Your task to perform on an android device: set the timer Image 0: 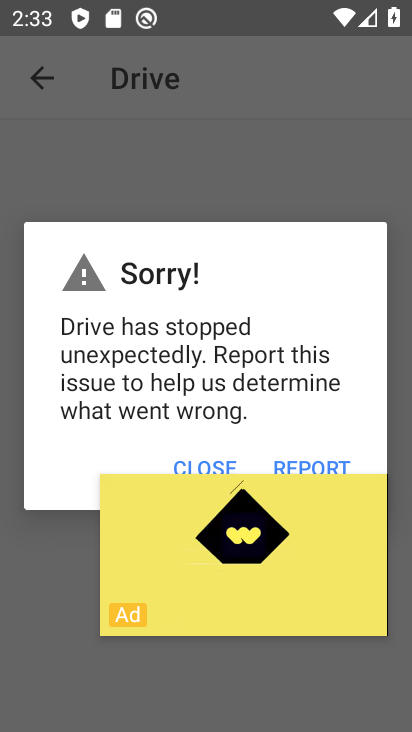
Step 0: press home button
Your task to perform on an android device: set the timer Image 1: 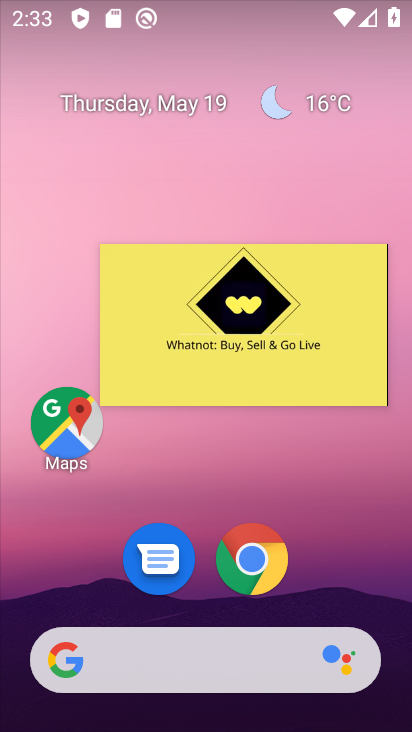
Step 1: click (350, 295)
Your task to perform on an android device: set the timer Image 2: 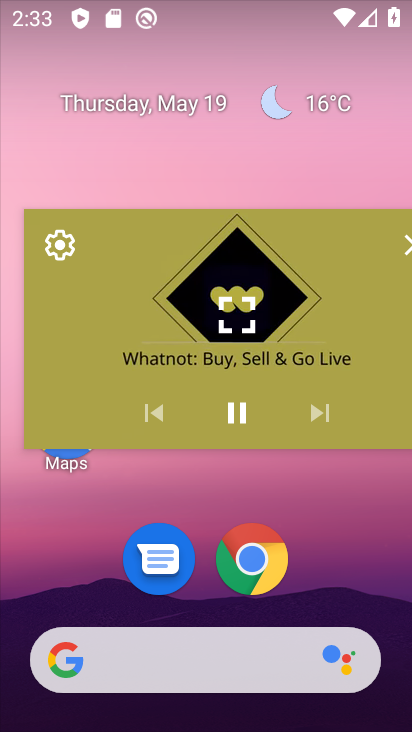
Step 2: click (372, 254)
Your task to perform on an android device: set the timer Image 3: 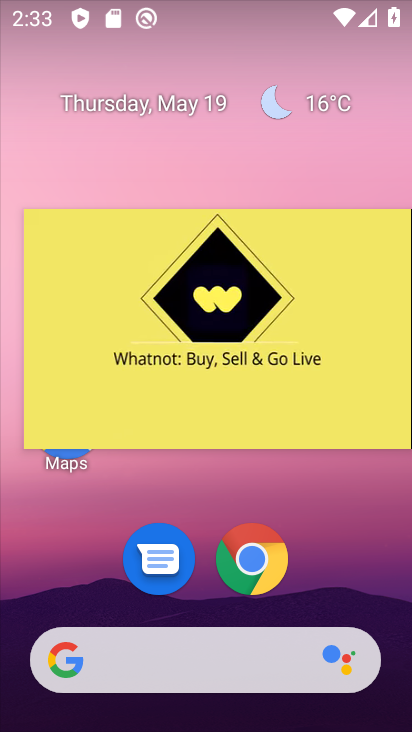
Step 3: click (410, 239)
Your task to perform on an android device: set the timer Image 4: 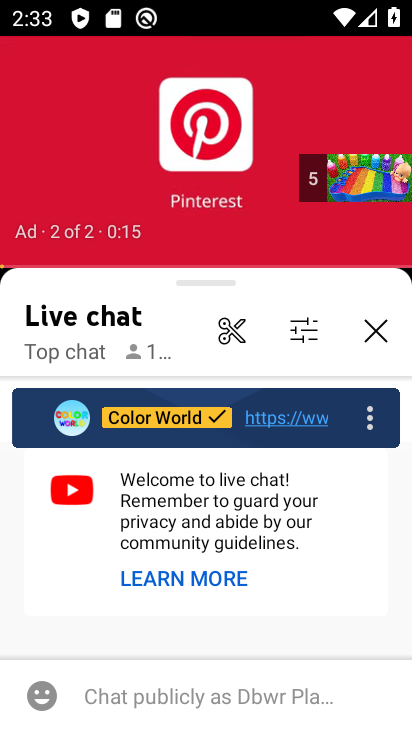
Step 4: press home button
Your task to perform on an android device: set the timer Image 5: 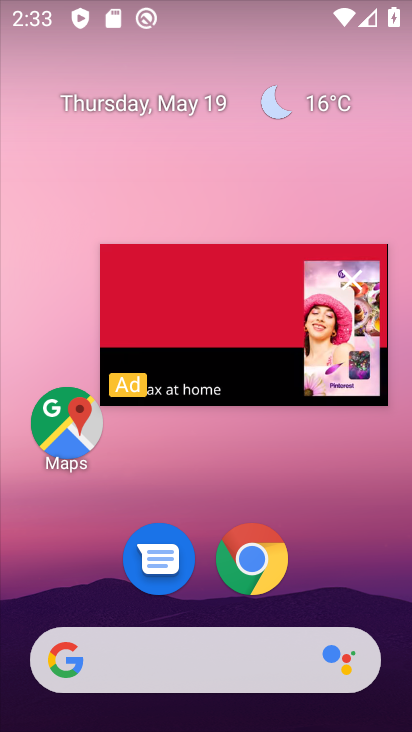
Step 5: click (353, 276)
Your task to perform on an android device: set the timer Image 6: 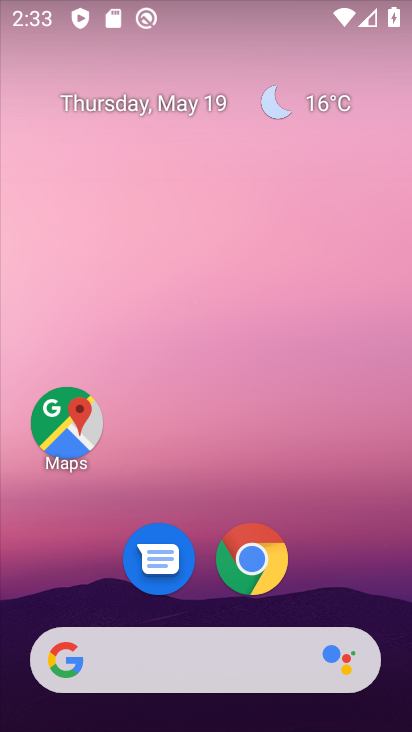
Step 6: drag from (212, 605) to (213, 210)
Your task to perform on an android device: set the timer Image 7: 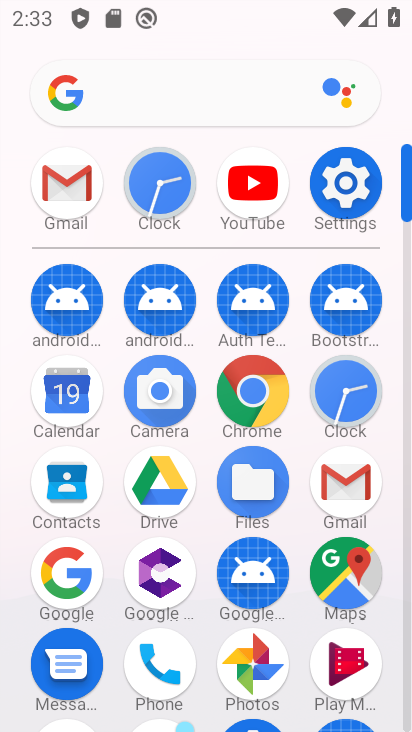
Step 7: click (339, 376)
Your task to perform on an android device: set the timer Image 8: 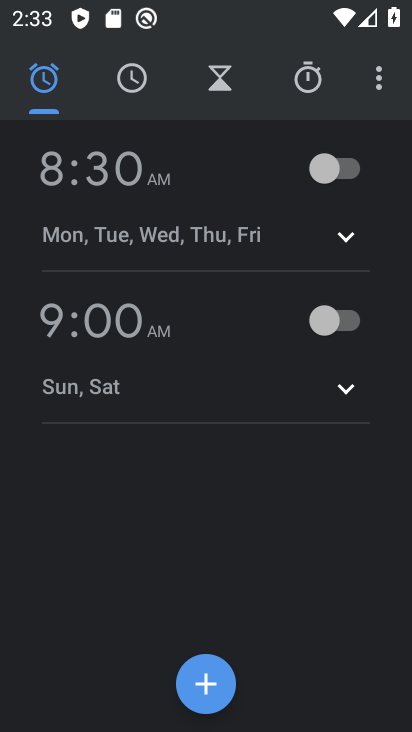
Step 8: click (222, 84)
Your task to perform on an android device: set the timer Image 9: 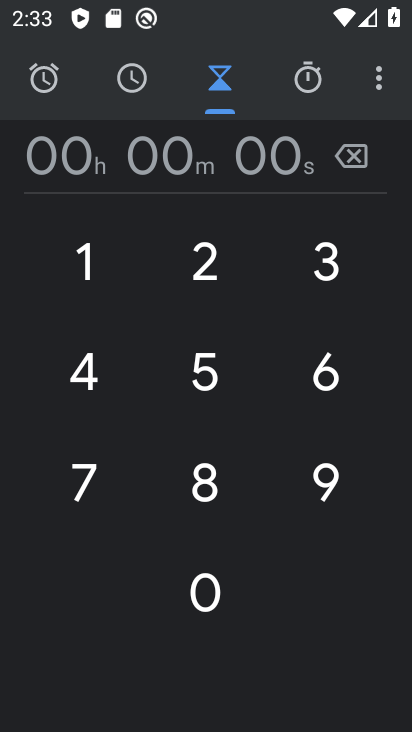
Step 9: click (267, 160)
Your task to perform on an android device: set the timer Image 10: 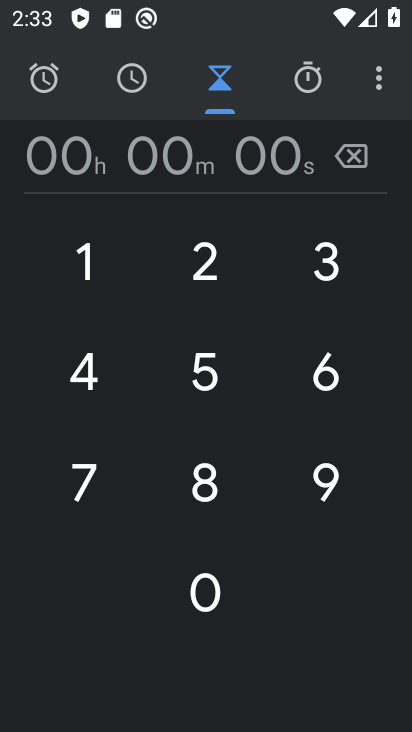
Step 10: type "23"
Your task to perform on an android device: set the timer Image 11: 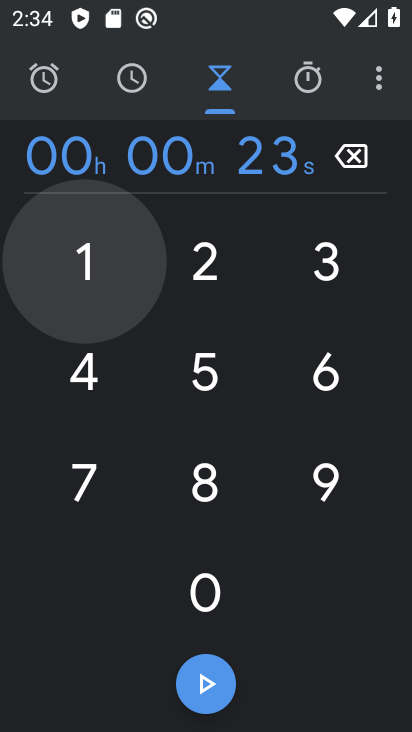
Step 11: task complete